Your task to perform on an android device: clear all cookies in the chrome app Image 0: 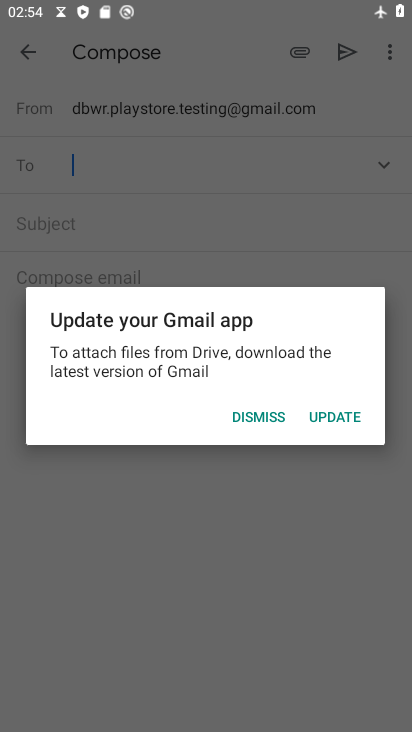
Step 0: press home button
Your task to perform on an android device: clear all cookies in the chrome app Image 1: 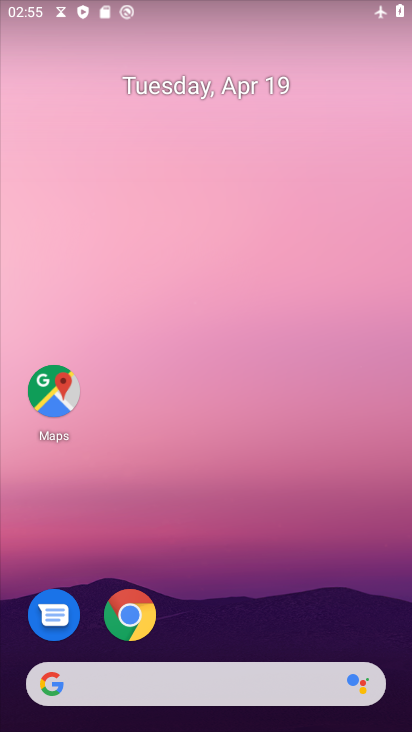
Step 1: drag from (264, 339) to (264, 254)
Your task to perform on an android device: clear all cookies in the chrome app Image 2: 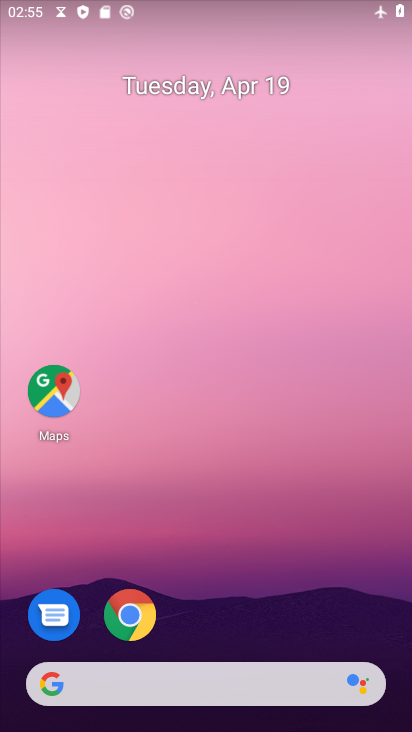
Step 2: drag from (242, 626) to (217, 45)
Your task to perform on an android device: clear all cookies in the chrome app Image 3: 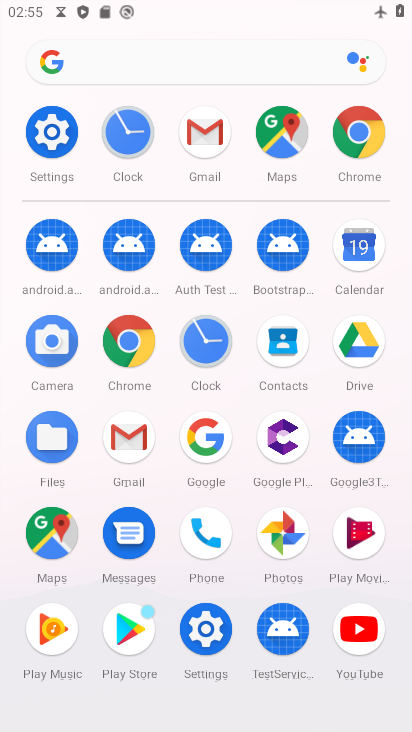
Step 3: click (350, 123)
Your task to perform on an android device: clear all cookies in the chrome app Image 4: 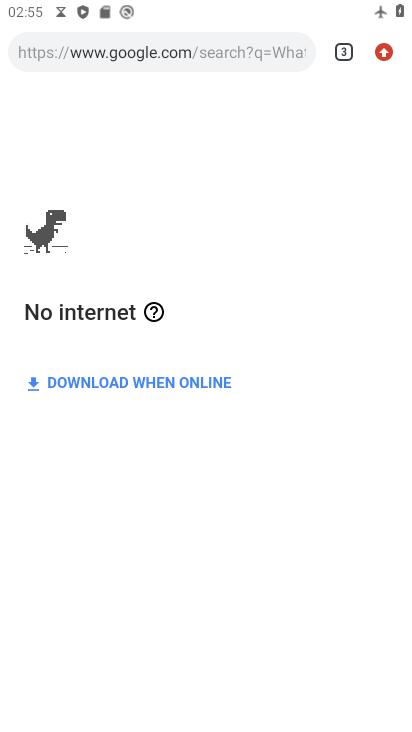
Step 4: click (382, 46)
Your task to perform on an android device: clear all cookies in the chrome app Image 5: 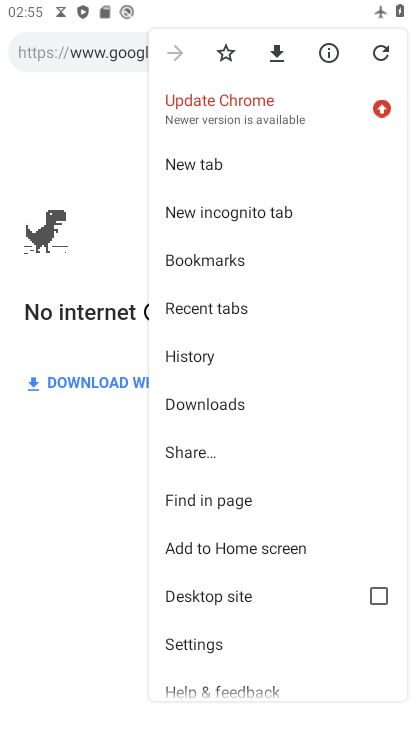
Step 5: drag from (275, 553) to (289, 149)
Your task to perform on an android device: clear all cookies in the chrome app Image 6: 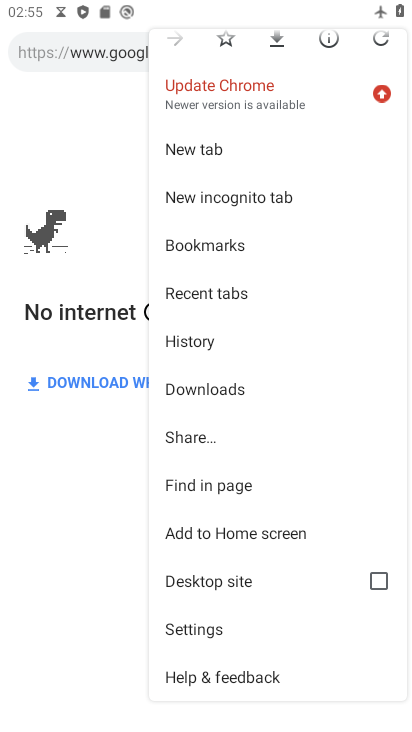
Step 6: click (237, 632)
Your task to perform on an android device: clear all cookies in the chrome app Image 7: 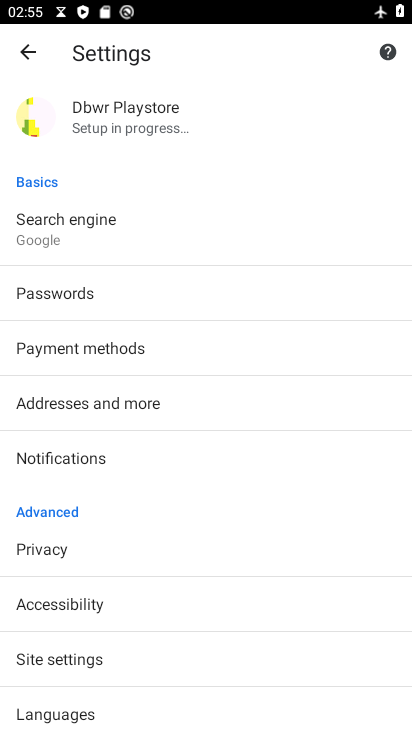
Step 7: drag from (182, 588) to (239, 251)
Your task to perform on an android device: clear all cookies in the chrome app Image 8: 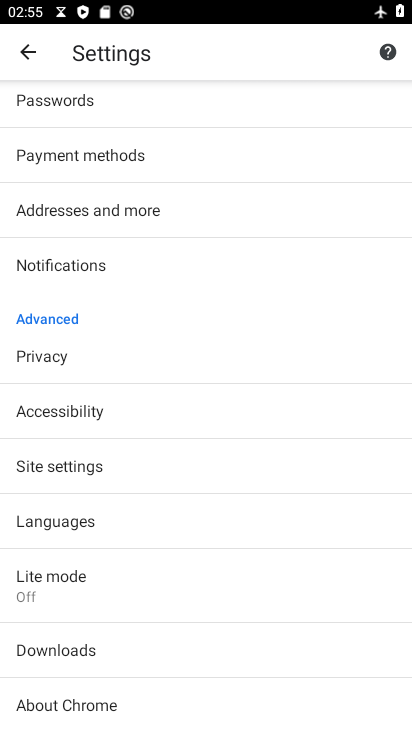
Step 8: click (86, 463)
Your task to perform on an android device: clear all cookies in the chrome app Image 9: 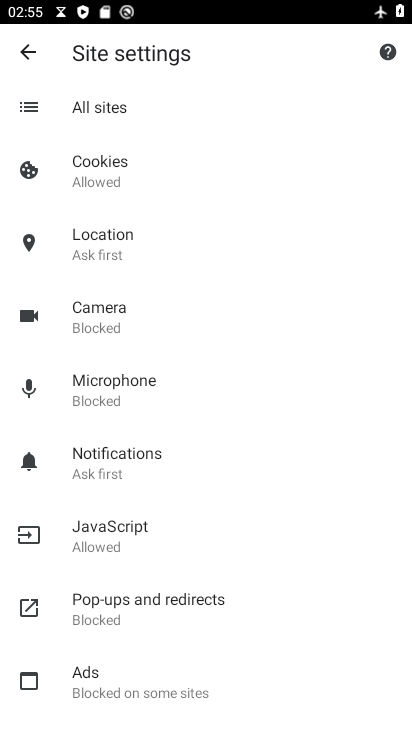
Step 9: click (135, 166)
Your task to perform on an android device: clear all cookies in the chrome app Image 10: 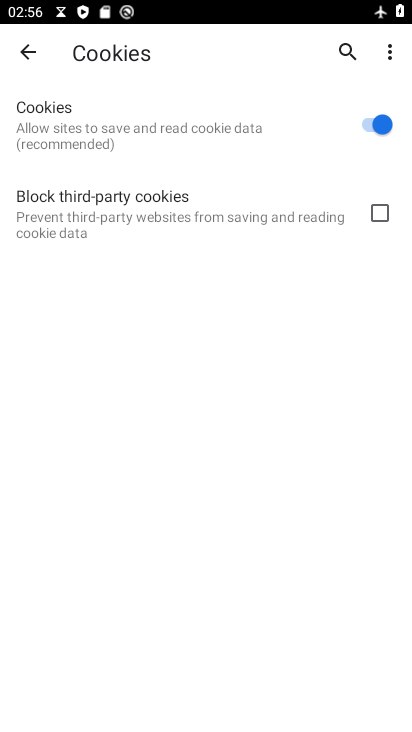
Step 10: task complete